Your task to perform on an android device: What's the weather going to be this weekend? Image 0: 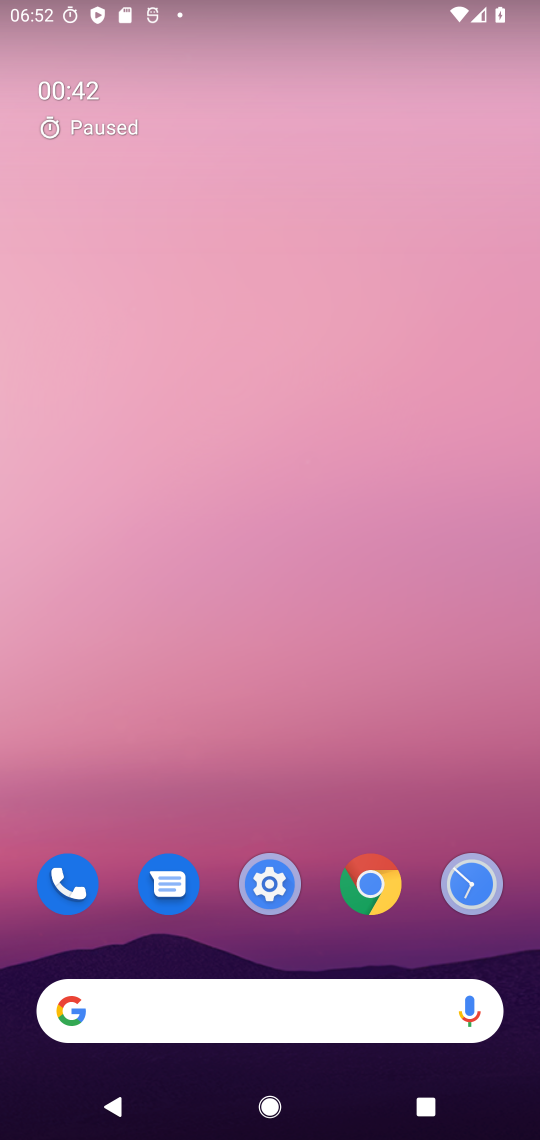
Step 0: press home button
Your task to perform on an android device: What's the weather going to be this weekend? Image 1: 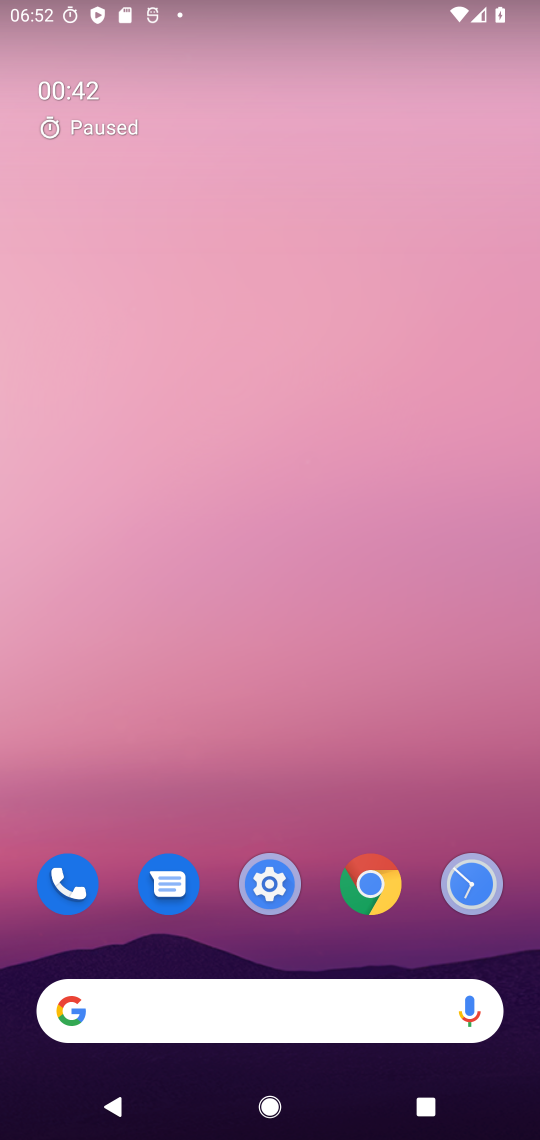
Step 1: click (83, 1015)
Your task to perform on an android device: What's the weather going to be this weekend? Image 2: 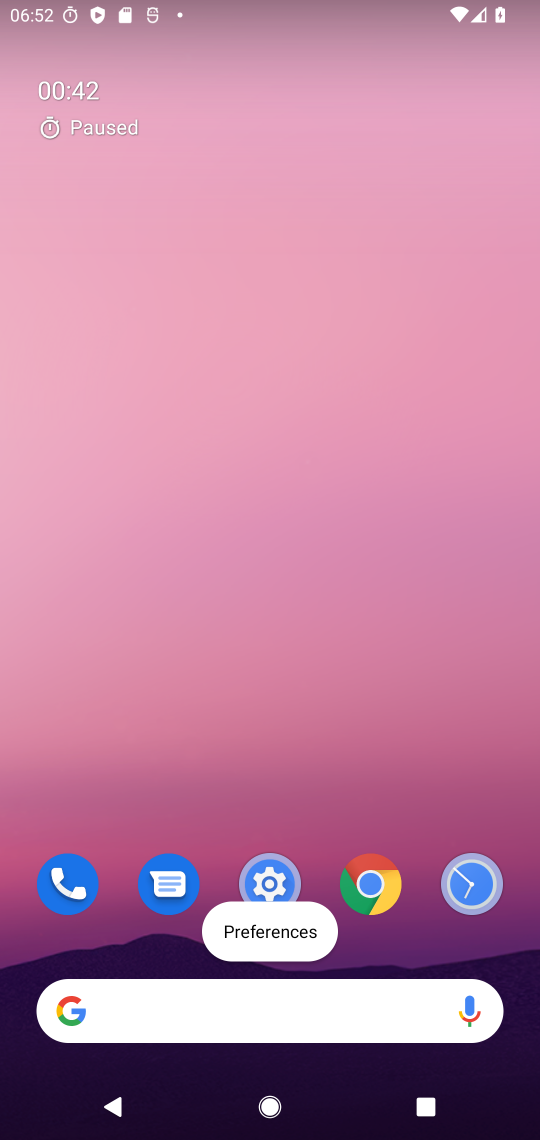
Step 2: click (70, 1013)
Your task to perform on an android device: What's the weather going to be this weekend? Image 3: 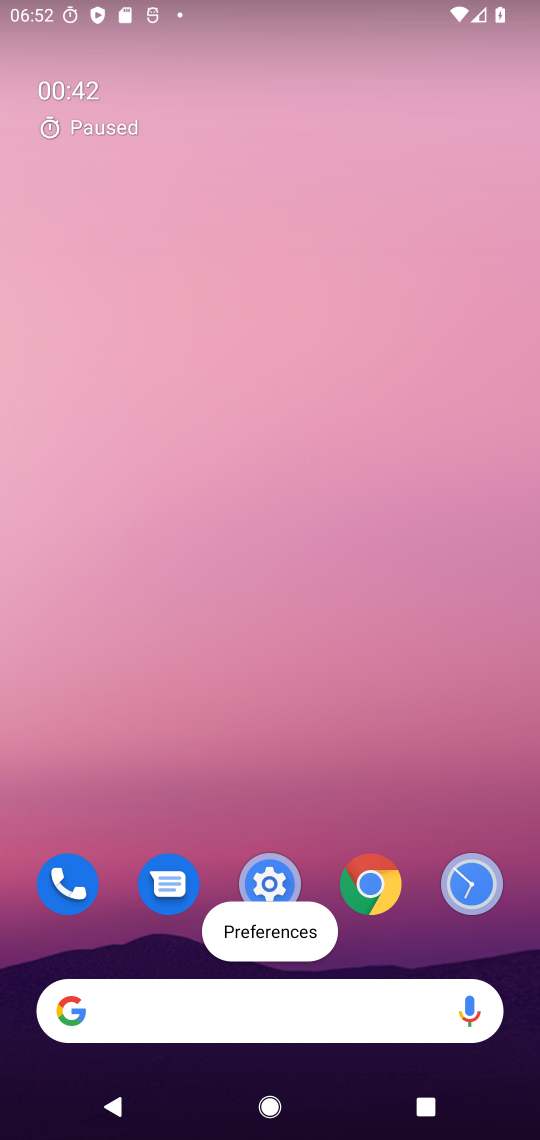
Step 3: click (63, 1021)
Your task to perform on an android device: What's the weather going to be this weekend? Image 4: 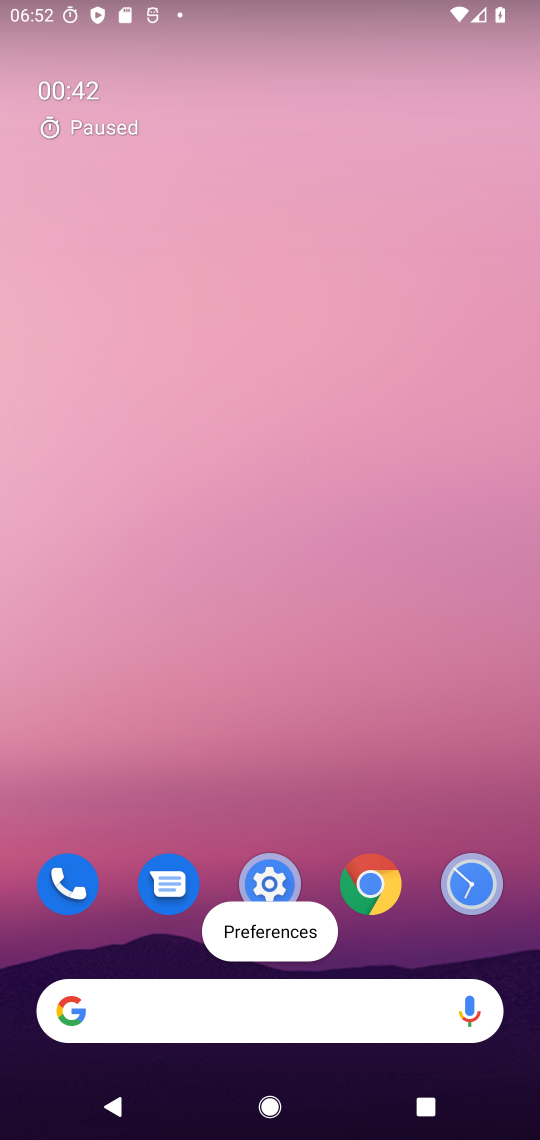
Step 4: click (54, 1033)
Your task to perform on an android device: What's the weather going to be this weekend? Image 5: 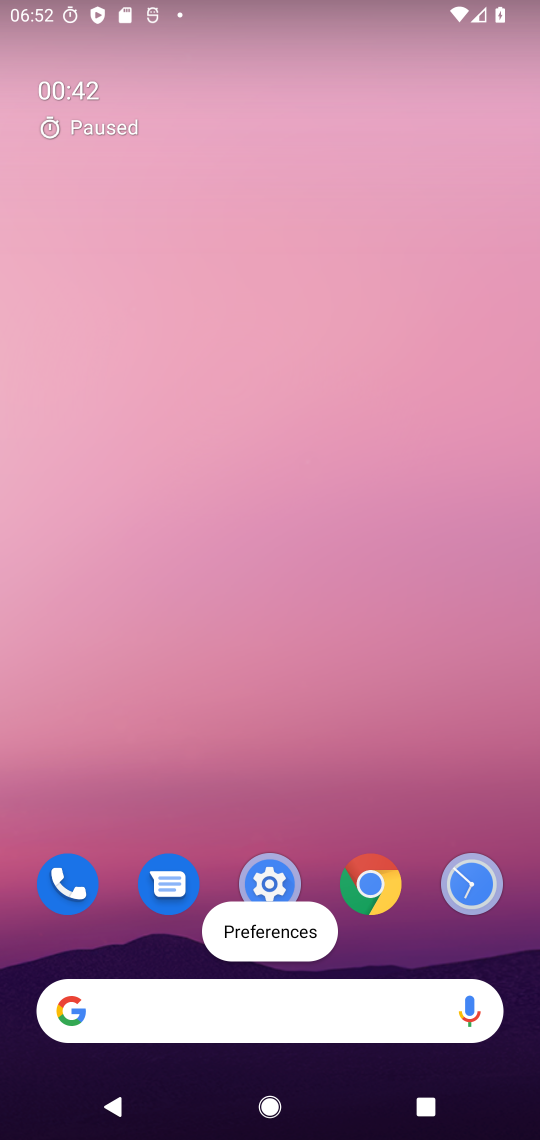
Step 5: click (55, 1033)
Your task to perform on an android device: What's the weather going to be this weekend? Image 6: 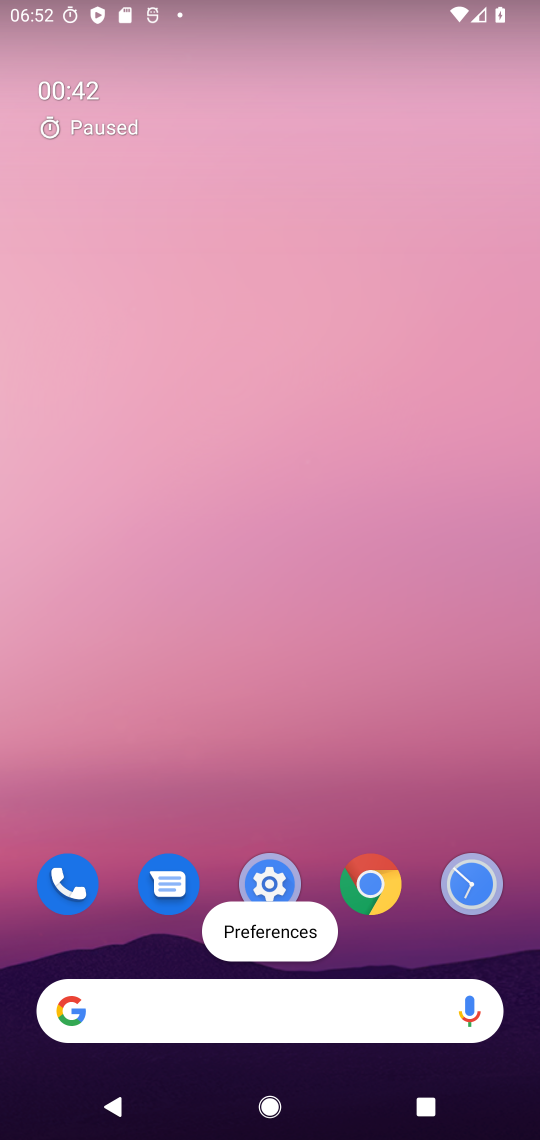
Step 6: click (60, 1016)
Your task to perform on an android device: What's the weather going to be this weekend? Image 7: 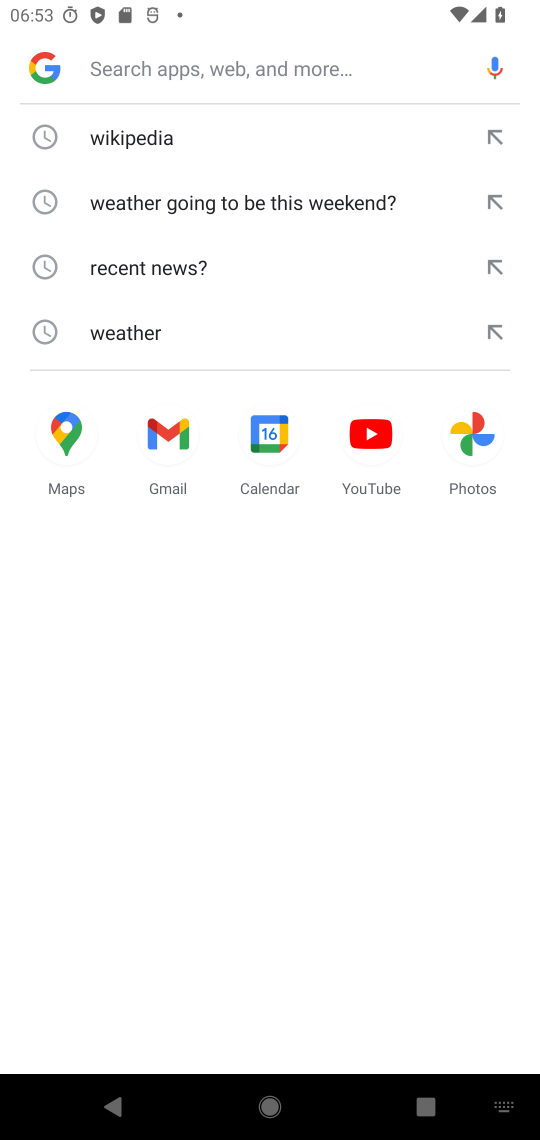
Step 7: press enter
Your task to perform on an android device: What's the weather going to be this weekend? Image 8: 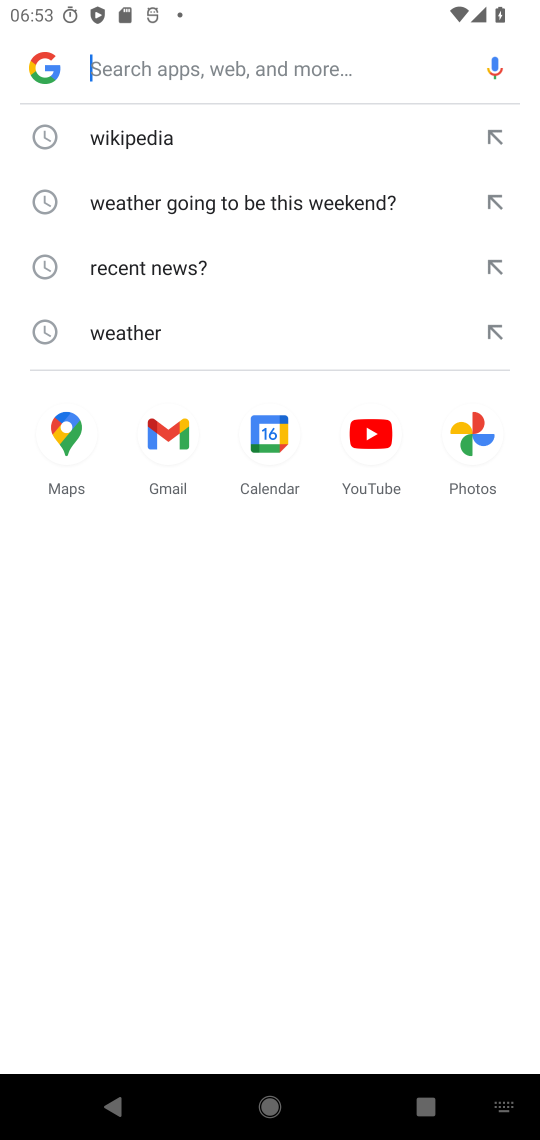
Step 8: type " weather going to be this weekend?"
Your task to perform on an android device: What's the weather going to be this weekend? Image 9: 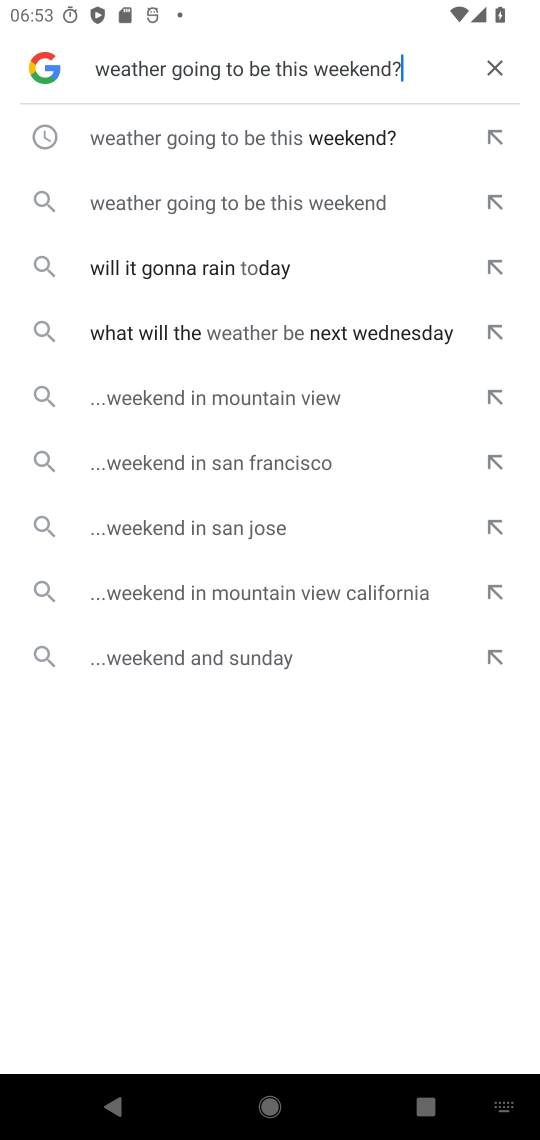
Step 9: press enter
Your task to perform on an android device: What's the weather going to be this weekend? Image 10: 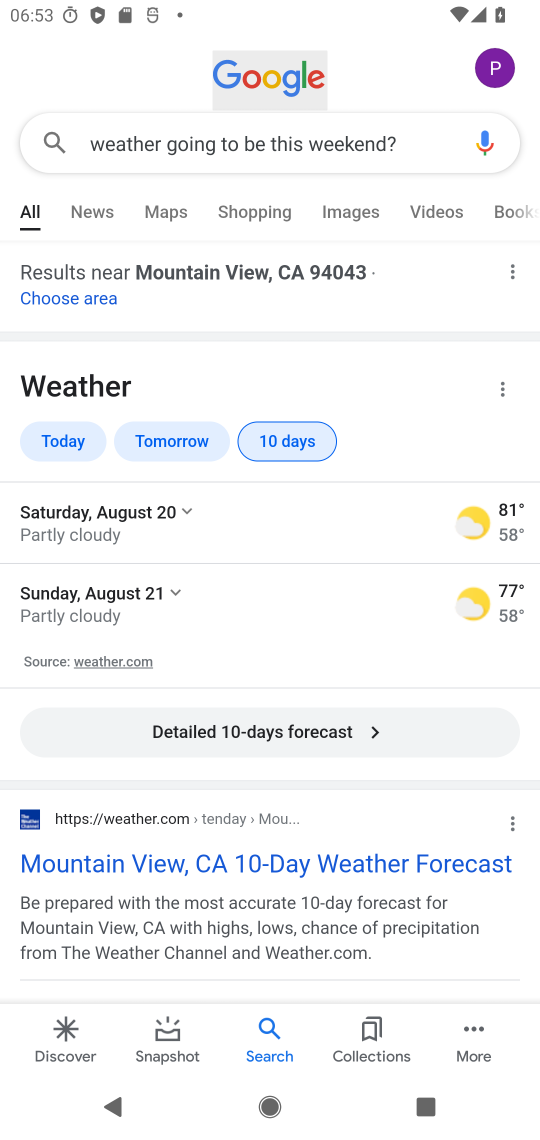
Step 10: task complete